Your task to perform on an android device: turn on showing notifications on the lock screen Image 0: 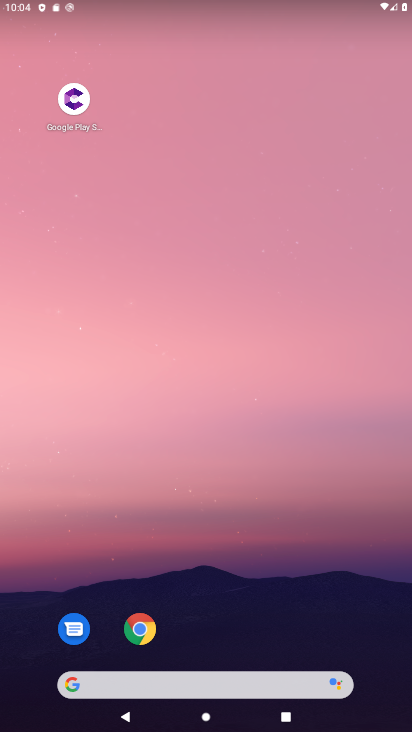
Step 0: drag from (327, 612) to (135, 0)
Your task to perform on an android device: turn on showing notifications on the lock screen Image 1: 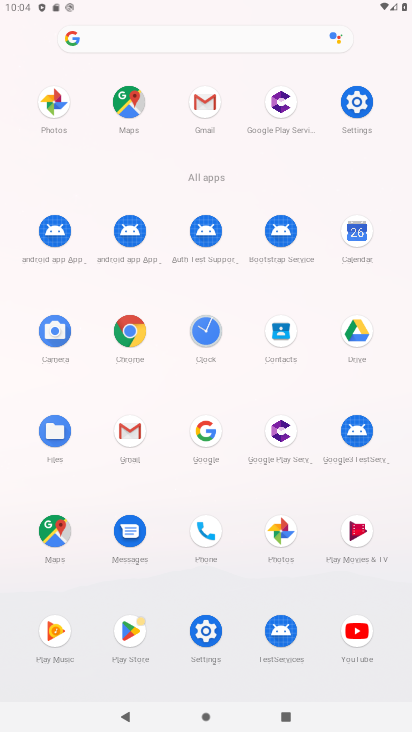
Step 1: click (211, 630)
Your task to perform on an android device: turn on showing notifications on the lock screen Image 2: 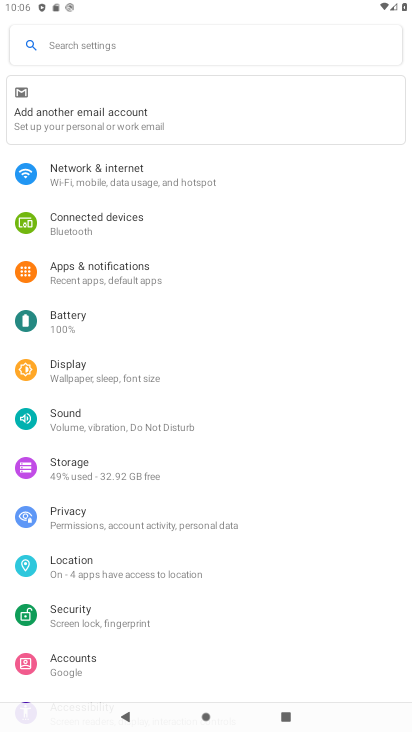
Step 2: click (103, 284)
Your task to perform on an android device: turn on showing notifications on the lock screen Image 3: 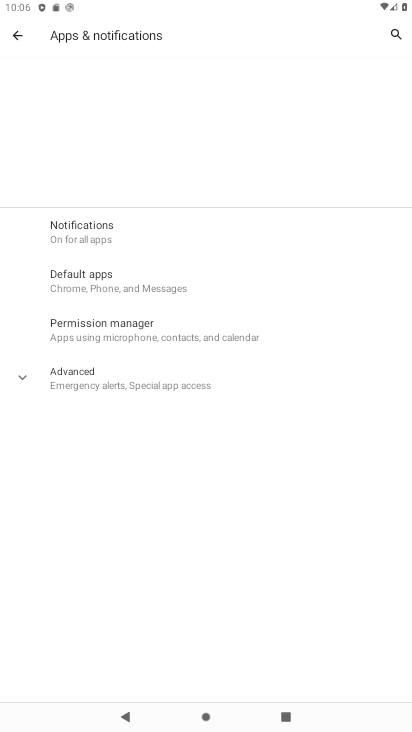
Step 3: click (97, 244)
Your task to perform on an android device: turn on showing notifications on the lock screen Image 4: 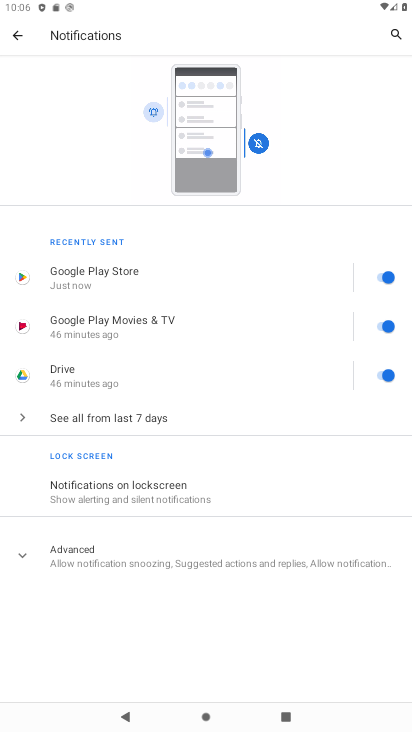
Step 4: click (97, 477)
Your task to perform on an android device: turn on showing notifications on the lock screen Image 5: 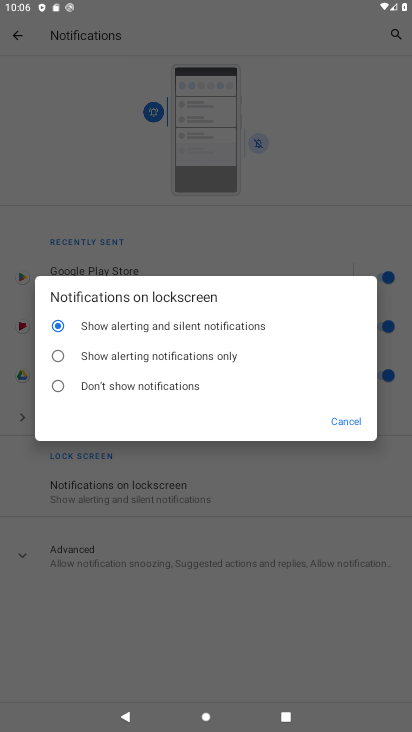
Step 5: task complete